Your task to perform on an android device: Show me popular games on the Play Store Image 0: 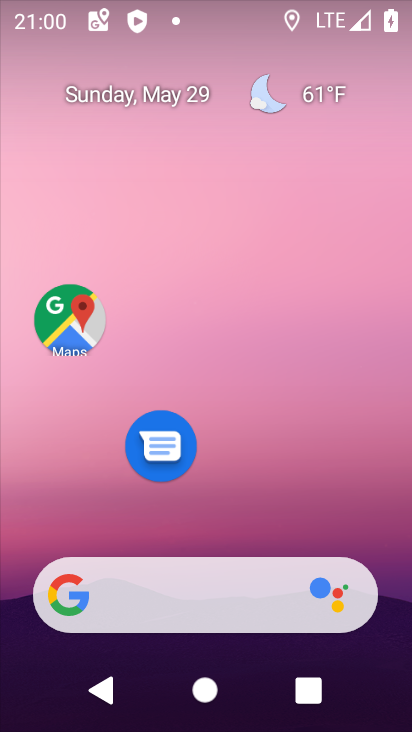
Step 0: drag from (222, 506) to (255, 108)
Your task to perform on an android device: Show me popular games on the Play Store Image 1: 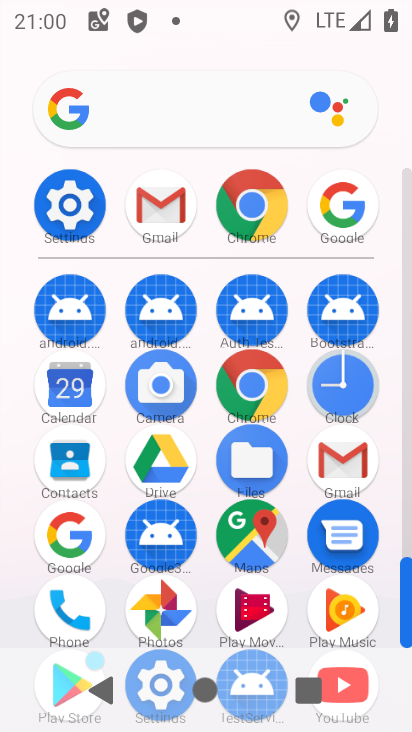
Step 1: drag from (111, 568) to (151, 365)
Your task to perform on an android device: Show me popular games on the Play Store Image 2: 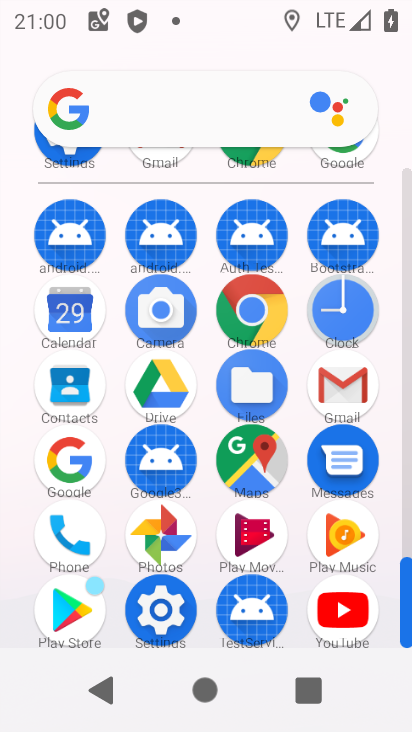
Step 2: click (65, 596)
Your task to perform on an android device: Show me popular games on the Play Store Image 3: 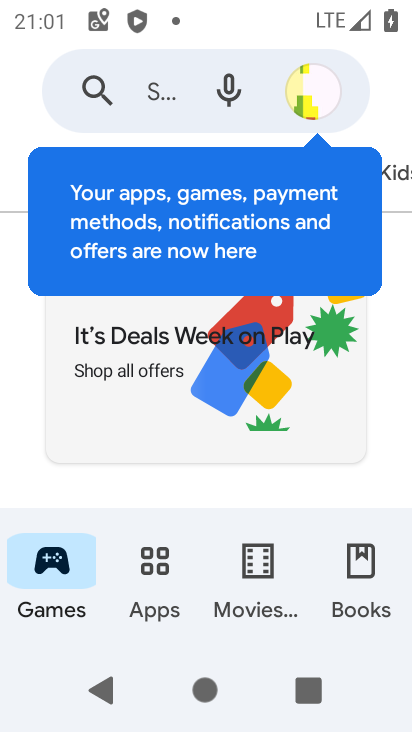
Step 3: click (357, 229)
Your task to perform on an android device: Show me popular games on the Play Store Image 4: 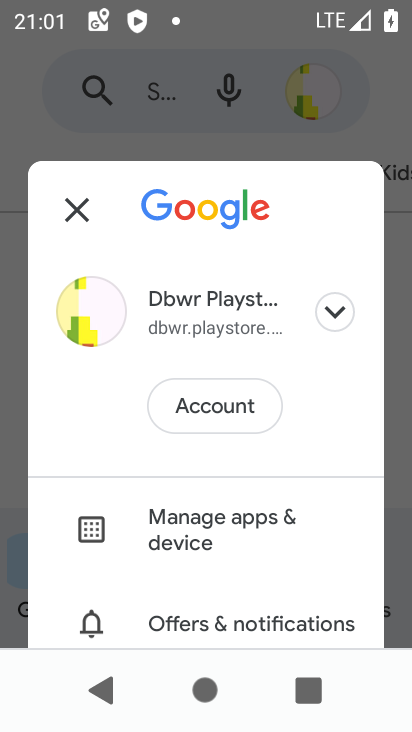
Step 4: click (80, 213)
Your task to perform on an android device: Show me popular games on the Play Store Image 5: 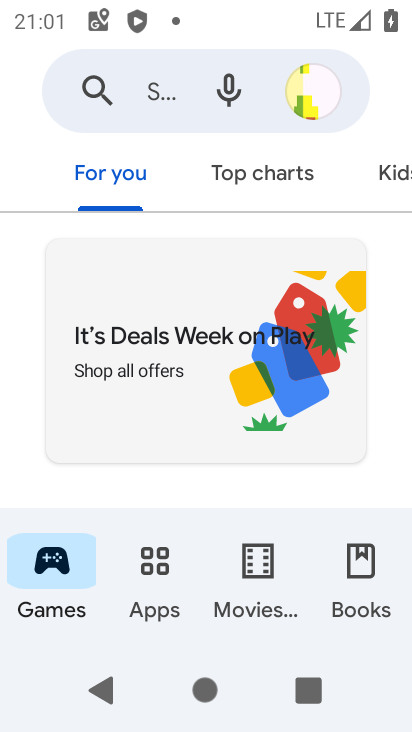
Step 5: click (251, 183)
Your task to perform on an android device: Show me popular games on the Play Store Image 6: 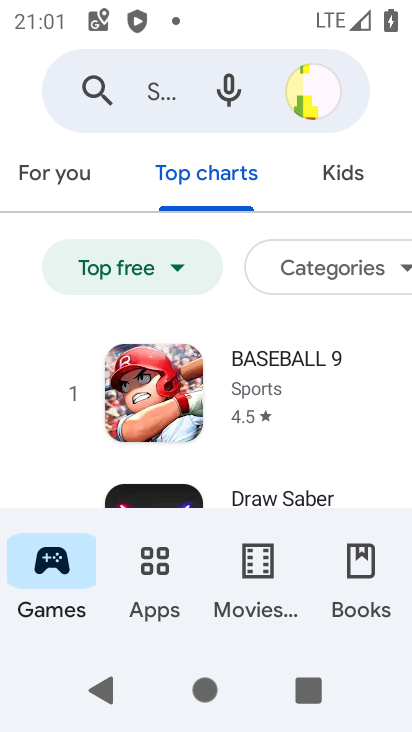
Step 6: task complete